Your task to perform on an android device: Open settings Image 0: 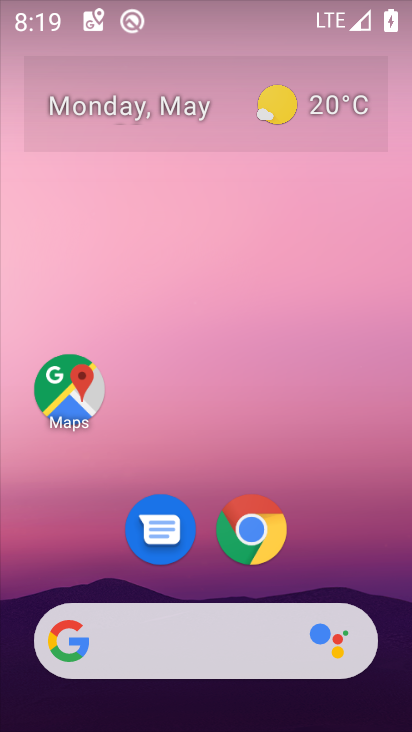
Step 0: drag from (55, 527) to (215, 136)
Your task to perform on an android device: Open settings Image 1: 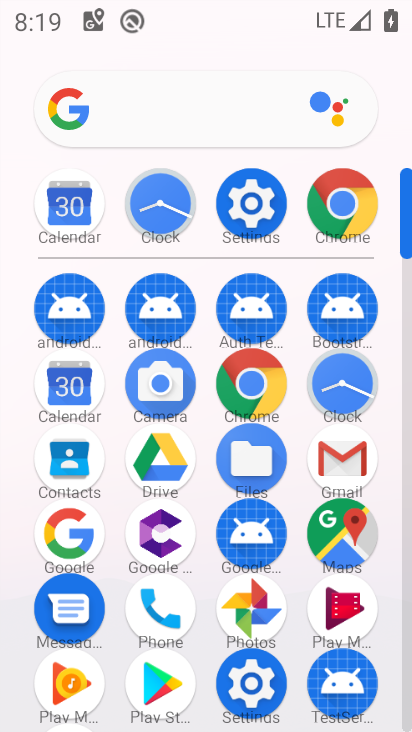
Step 1: click (237, 191)
Your task to perform on an android device: Open settings Image 2: 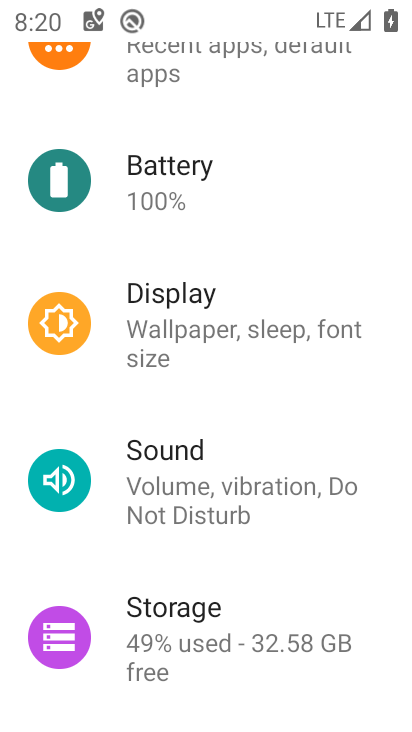
Step 2: click (160, 632)
Your task to perform on an android device: Open settings Image 3: 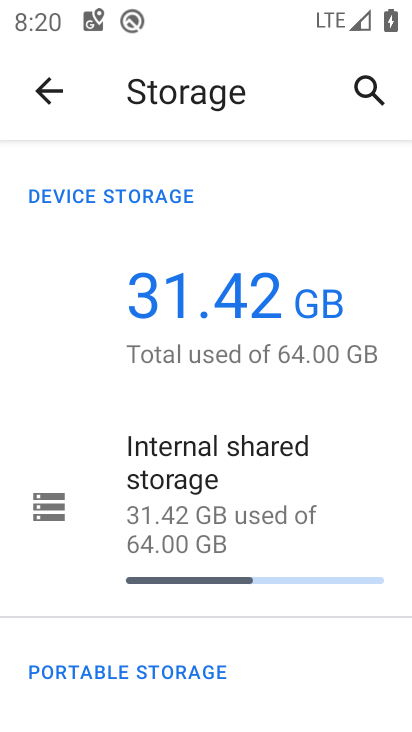
Step 3: task complete